Your task to perform on an android device: Open Amazon Image 0: 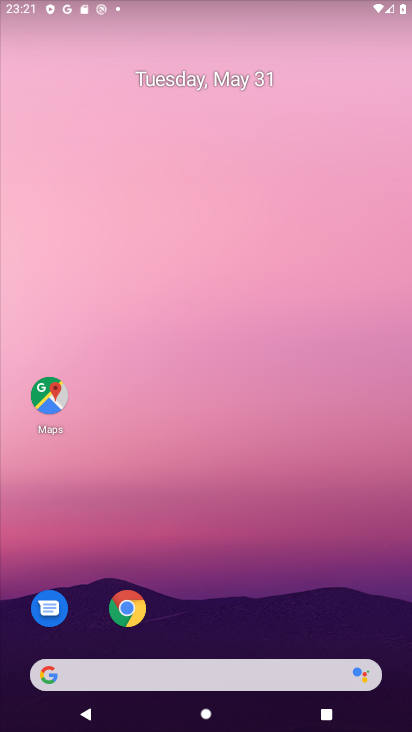
Step 0: press home button
Your task to perform on an android device: Open Amazon Image 1: 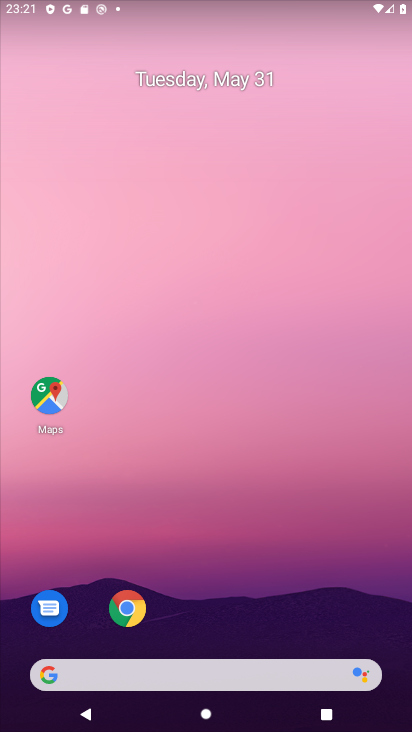
Step 1: click (109, 605)
Your task to perform on an android device: Open Amazon Image 2: 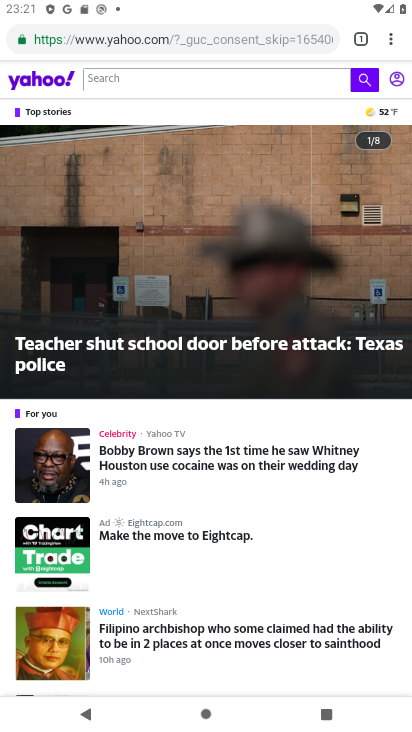
Step 2: click (391, 36)
Your task to perform on an android device: Open Amazon Image 3: 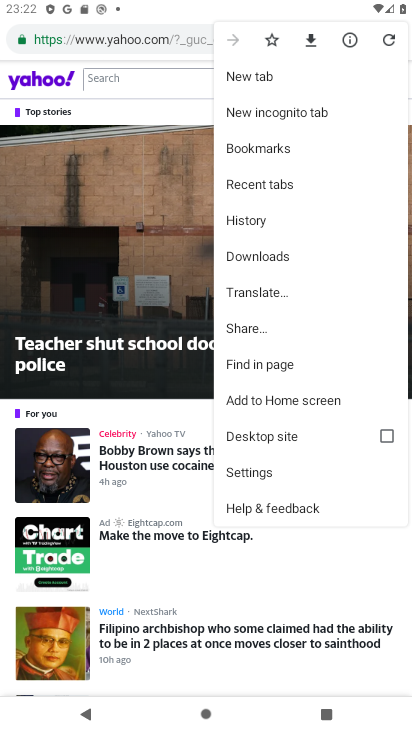
Step 3: click (280, 74)
Your task to perform on an android device: Open Amazon Image 4: 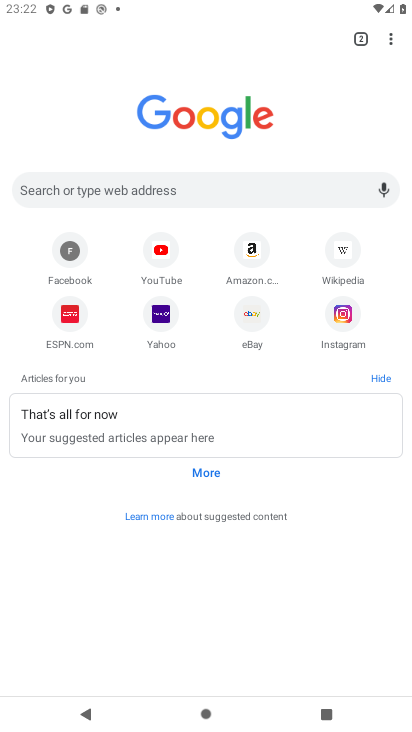
Step 4: click (251, 254)
Your task to perform on an android device: Open Amazon Image 5: 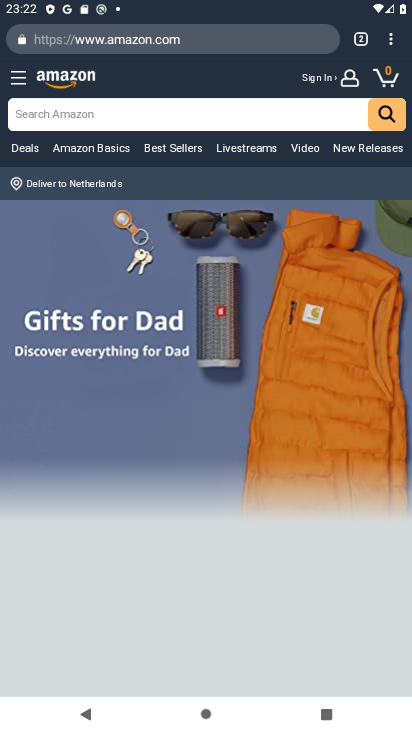
Step 5: task complete